Your task to perform on an android device: Check the news Image 0: 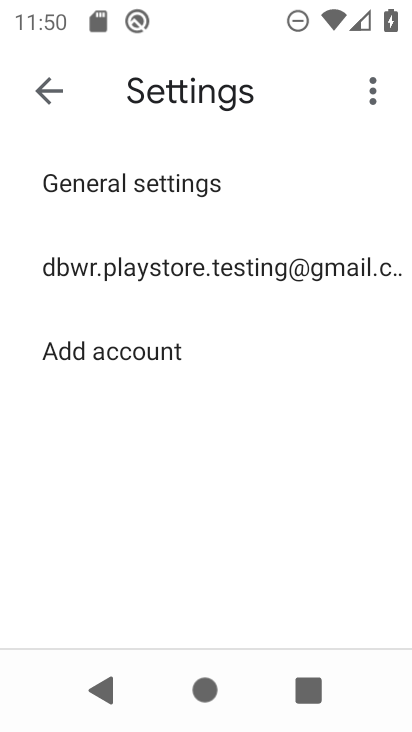
Step 0: press back button
Your task to perform on an android device: Check the news Image 1: 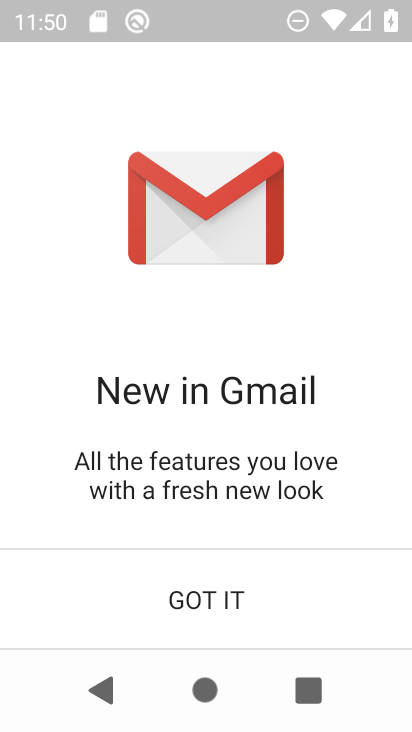
Step 1: press back button
Your task to perform on an android device: Check the news Image 2: 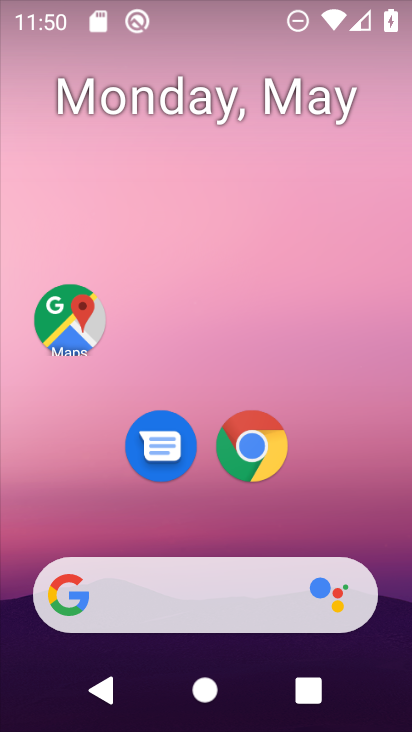
Step 2: drag from (323, 516) to (293, 180)
Your task to perform on an android device: Check the news Image 3: 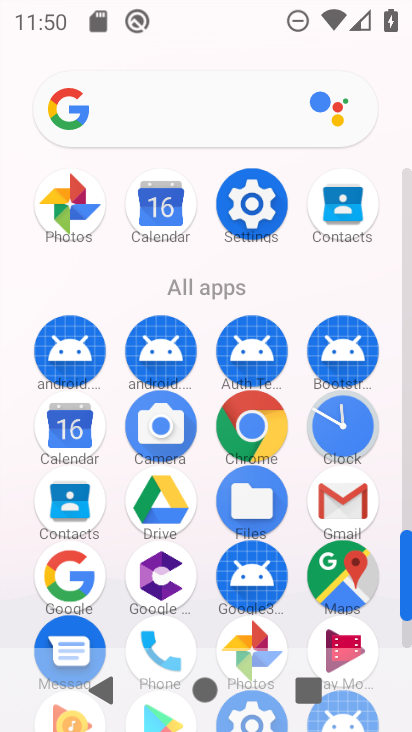
Step 3: click (66, 573)
Your task to perform on an android device: Check the news Image 4: 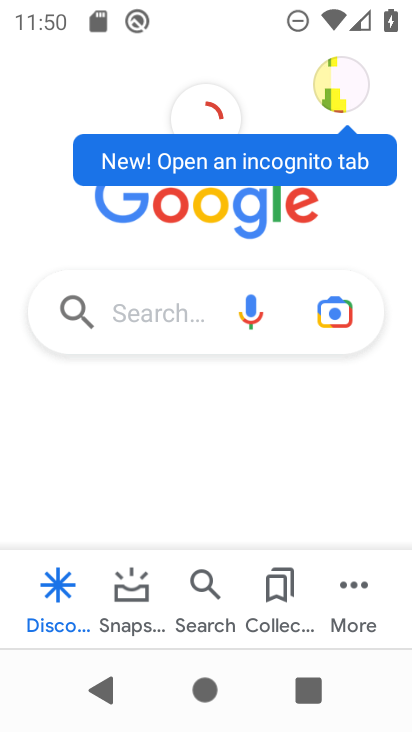
Step 4: click (148, 323)
Your task to perform on an android device: Check the news Image 5: 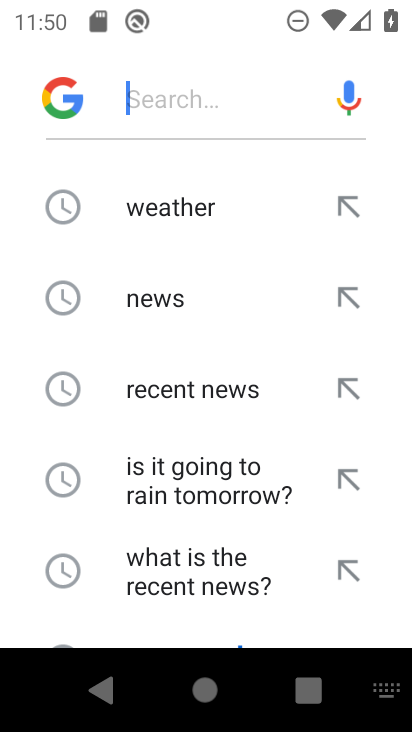
Step 5: click (165, 296)
Your task to perform on an android device: Check the news Image 6: 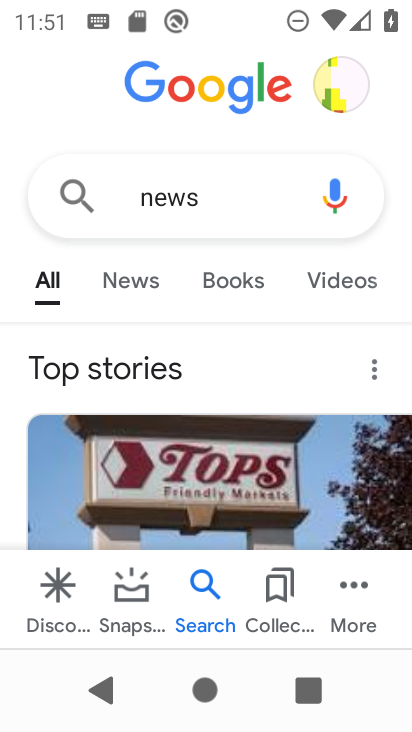
Step 6: task complete